Your task to perform on an android device: find which apps use the phone's location Image 0: 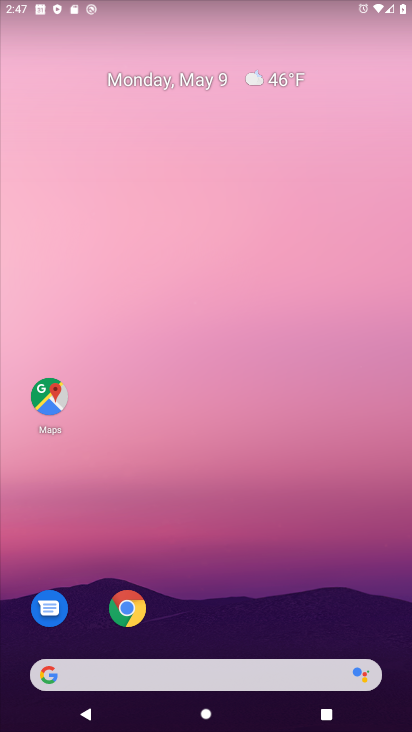
Step 0: drag from (266, 615) to (327, 293)
Your task to perform on an android device: find which apps use the phone's location Image 1: 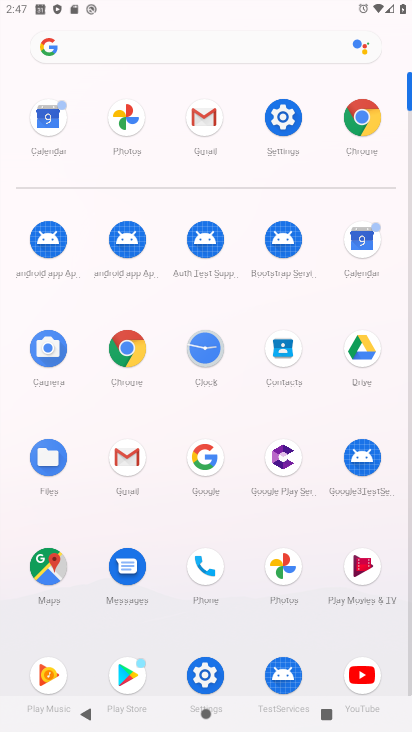
Step 1: click (54, 563)
Your task to perform on an android device: find which apps use the phone's location Image 2: 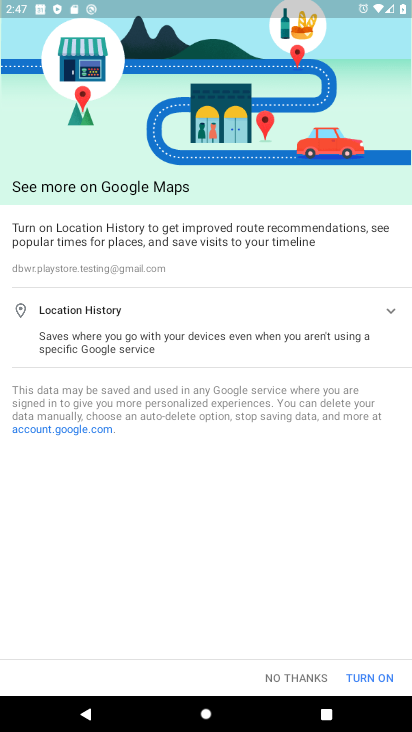
Step 2: task complete